Your task to perform on an android device: turn on priority inbox in the gmail app Image 0: 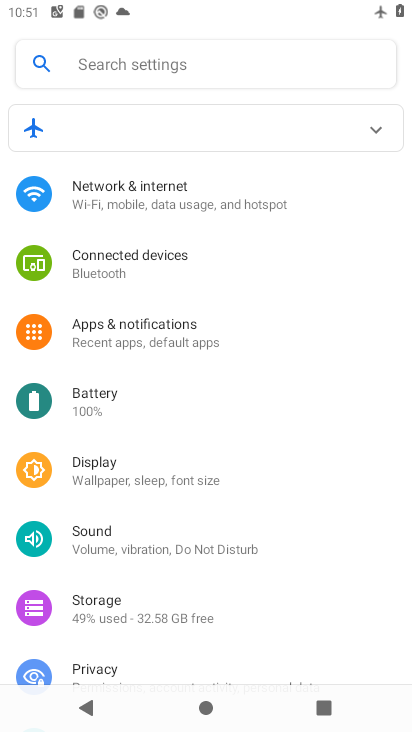
Step 0: drag from (252, 546) to (264, 42)
Your task to perform on an android device: turn on priority inbox in the gmail app Image 1: 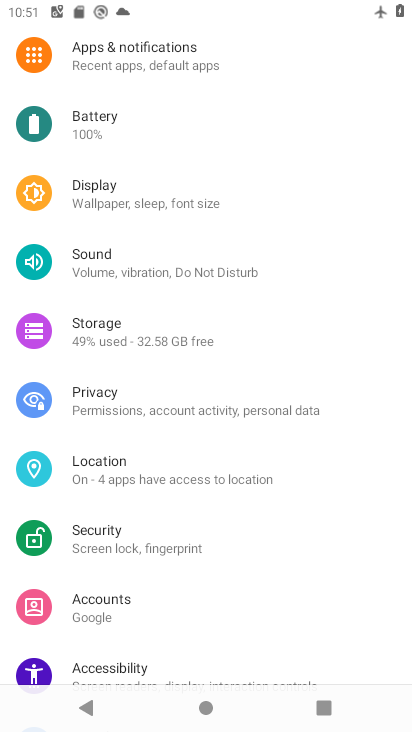
Step 1: press home button
Your task to perform on an android device: turn on priority inbox in the gmail app Image 2: 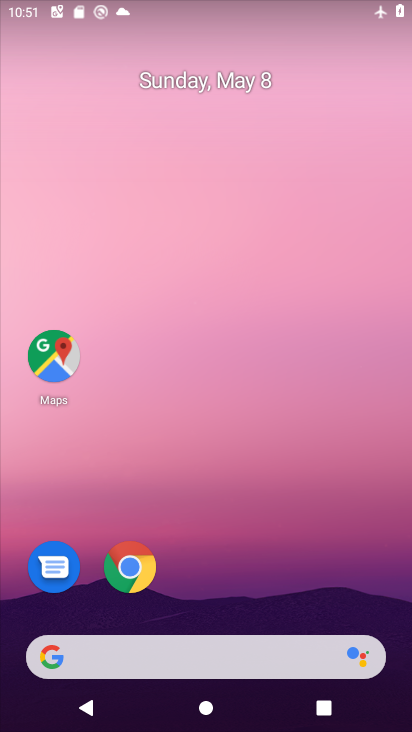
Step 2: drag from (302, 587) to (250, 181)
Your task to perform on an android device: turn on priority inbox in the gmail app Image 3: 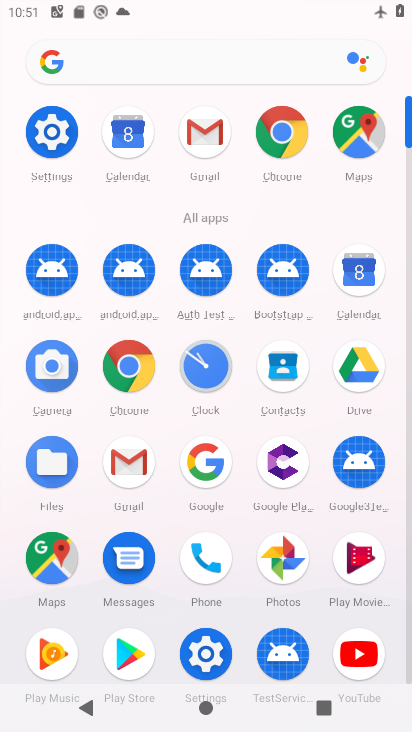
Step 3: click (214, 378)
Your task to perform on an android device: turn on priority inbox in the gmail app Image 4: 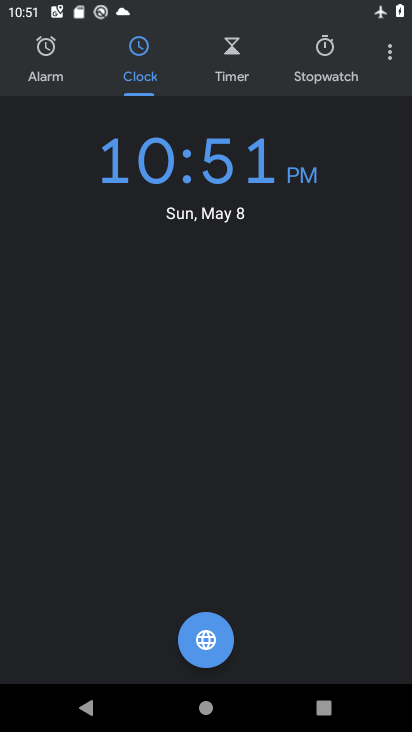
Step 4: click (385, 49)
Your task to perform on an android device: turn on priority inbox in the gmail app Image 5: 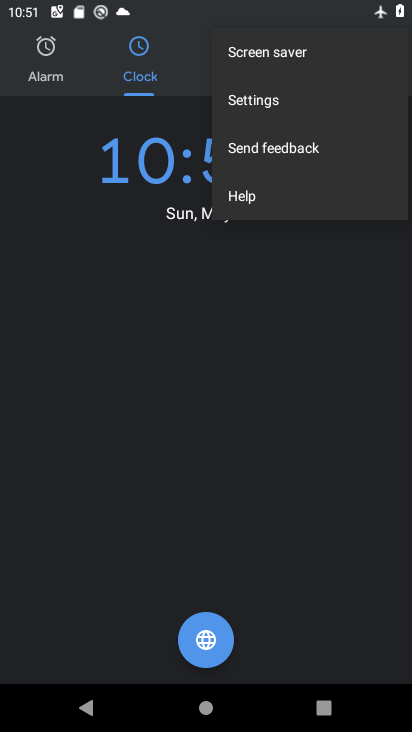
Step 5: click (288, 109)
Your task to perform on an android device: turn on priority inbox in the gmail app Image 6: 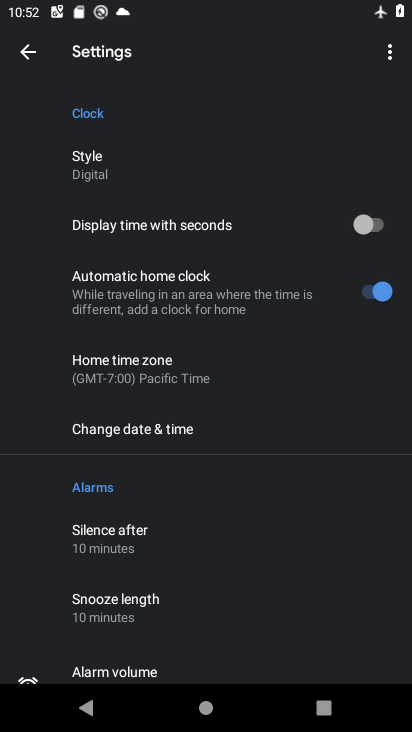
Step 6: drag from (275, 623) to (295, 178)
Your task to perform on an android device: turn on priority inbox in the gmail app Image 7: 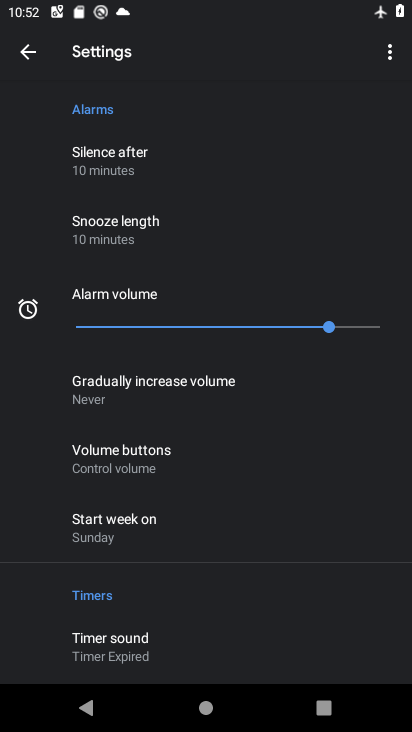
Step 7: press home button
Your task to perform on an android device: turn on priority inbox in the gmail app Image 8: 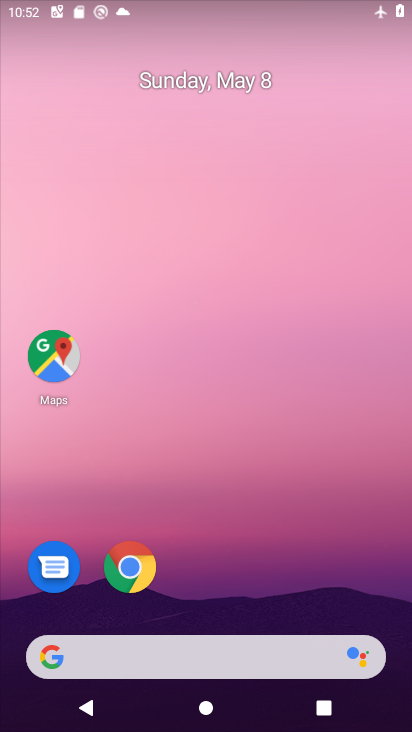
Step 8: drag from (253, 595) to (225, 213)
Your task to perform on an android device: turn on priority inbox in the gmail app Image 9: 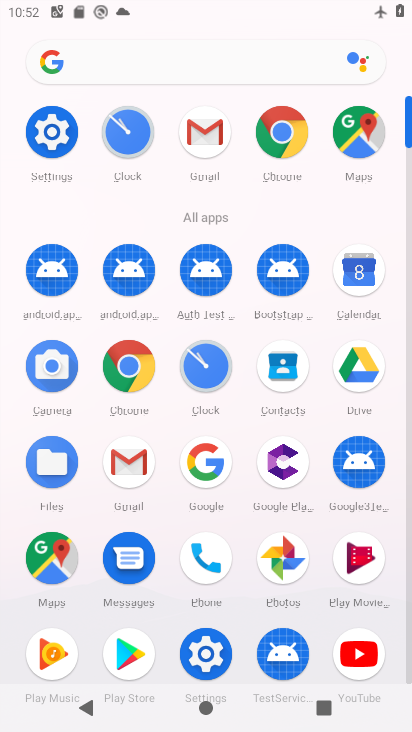
Step 9: click (214, 170)
Your task to perform on an android device: turn on priority inbox in the gmail app Image 10: 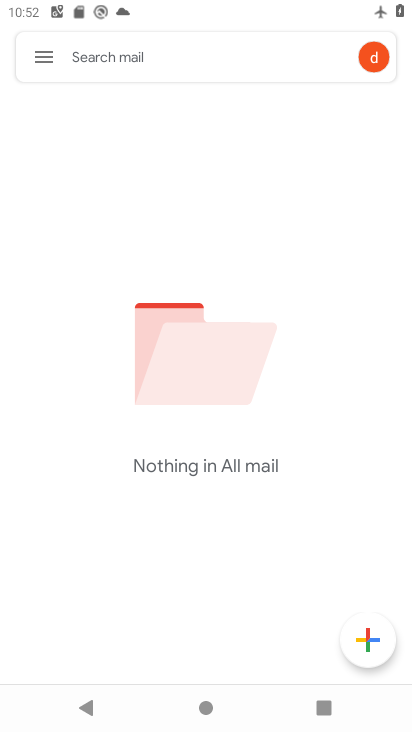
Step 10: click (48, 53)
Your task to perform on an android device: turn on priority inbox in the gmail app Image 11: 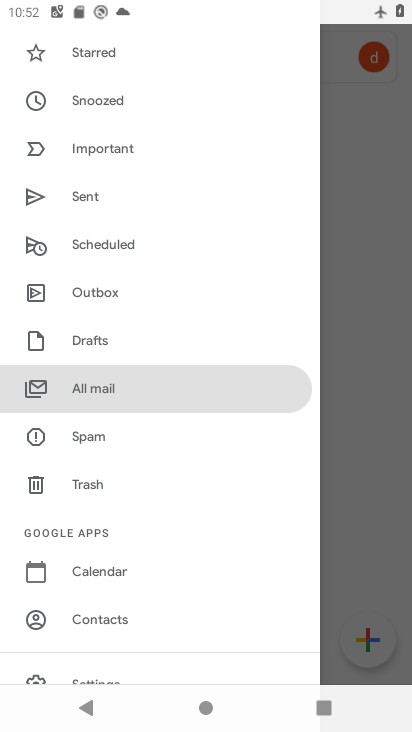
Step 11: press back button
Your task to perform on an android device: turn on priority inbox in the gmail app Image 12: 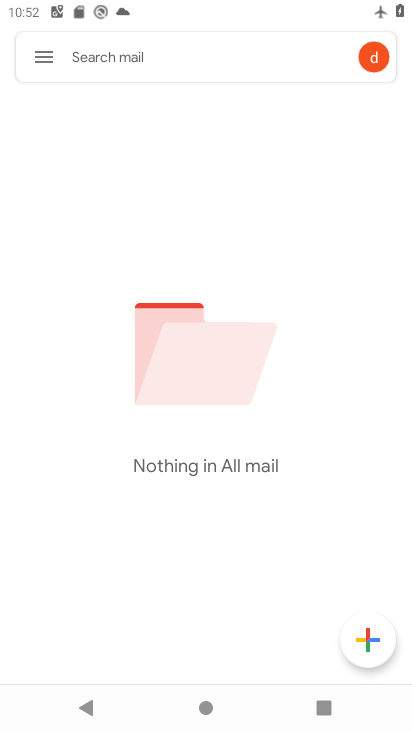
Step 12: click (40, 58)
Your task to perform on an android device: turn on priority inbox in the gmail app Image 13: 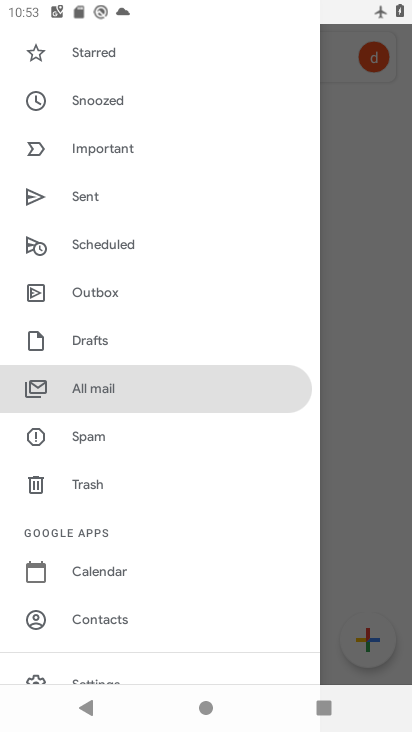
Step 13: drag from (109, 638) to (182, 130)
Your task to perform on an android device: turn on priority inbox in the gmail app Image 14: 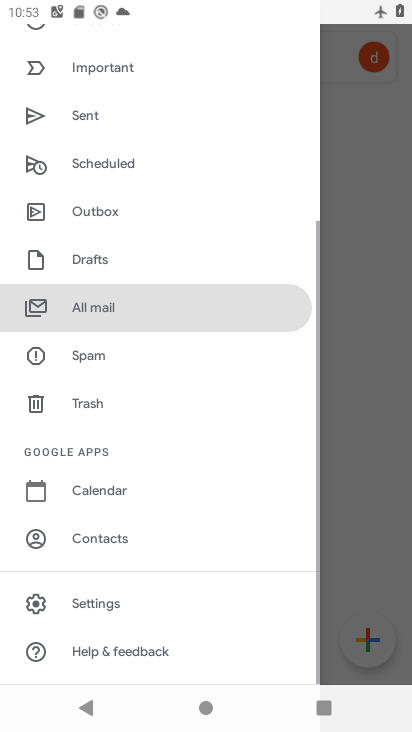
Step 14: click (81, 616)
Your task to perform on an android device: turn on priority inbox in the gmail app Image 15: 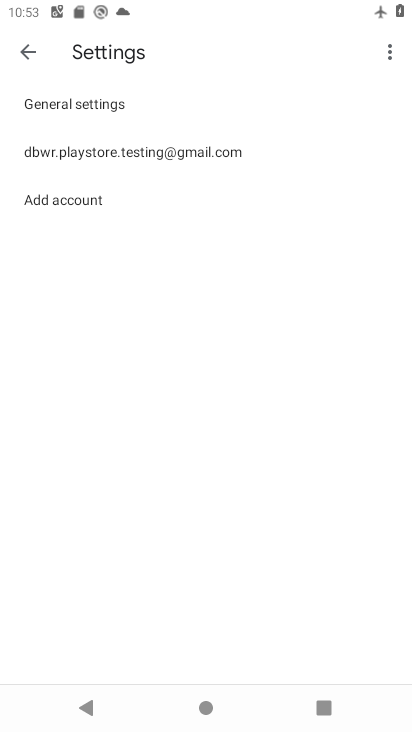
Step 15: click (164, 161)
Your task to perform on an android device: turn on priority inbox in the gmail app Image 16: 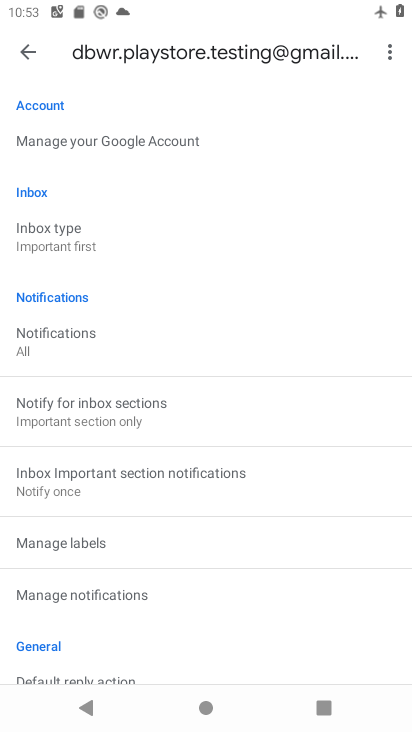
Step 16: drag from (131, 640) to (124, 238)
Your task to perform on an android device: turn on priority inbox in the gmail app Image 17: 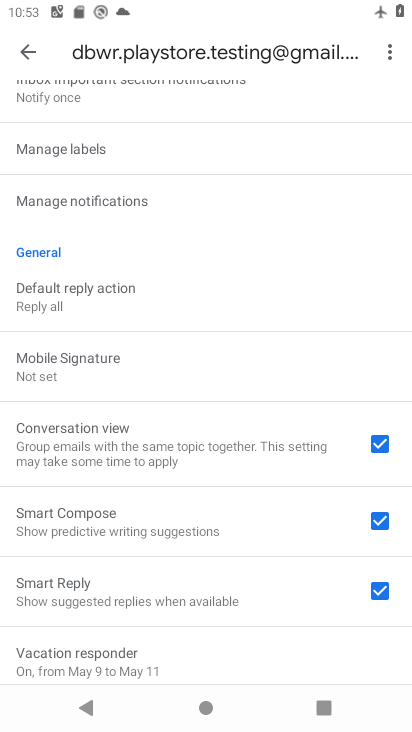
Step 17: drag from (158, 201) to (159, 641)
Your task to perform on an android device: turn on priority inbox in the gmail app Image 18: 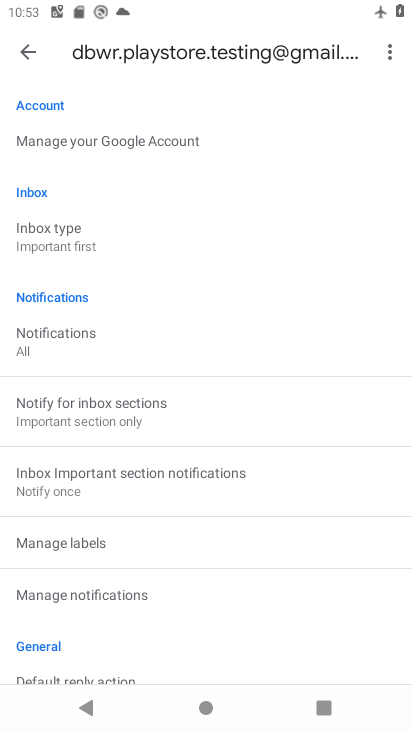
Step 18: click (55, 232)
Your task to perform on an android device: turn on priority inbox in the gmail app Image 19: 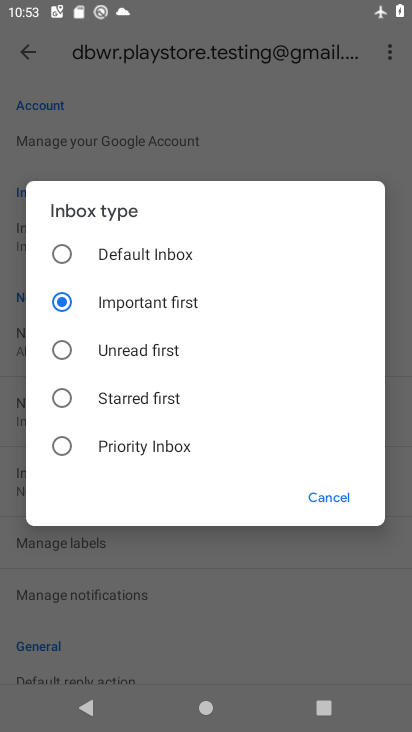
Step 19: click (57, 448)
Your task to perform on an android device: turn on priority inbox in the gmail app Image 20: 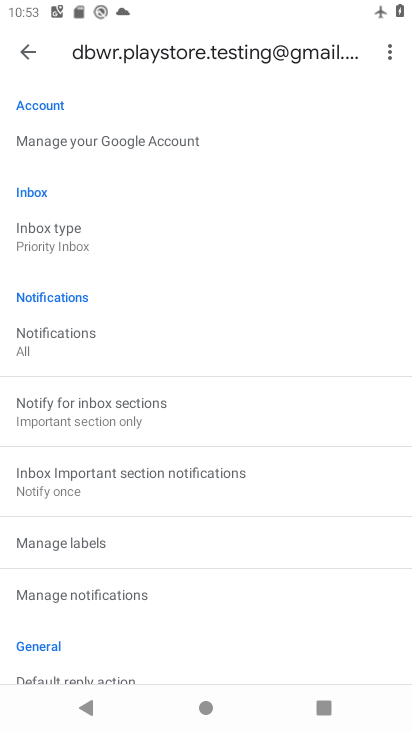
Step 20: task complete